Your task to perform on an android device: Go to Google maps Image 0: 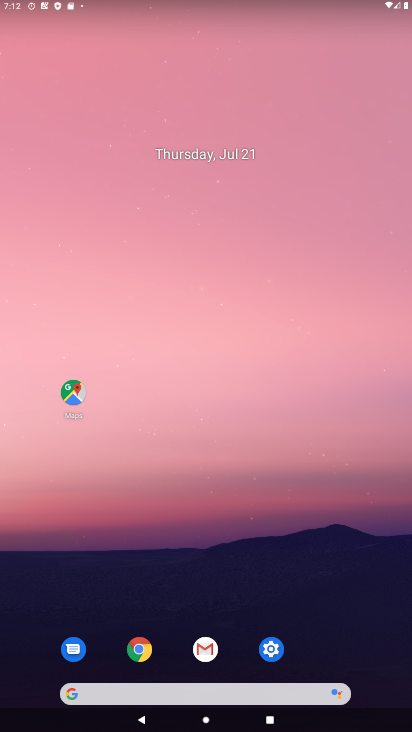
Step 0: click (65, 382)
Your task to perform on an android device: Go to Google maps Image 1: 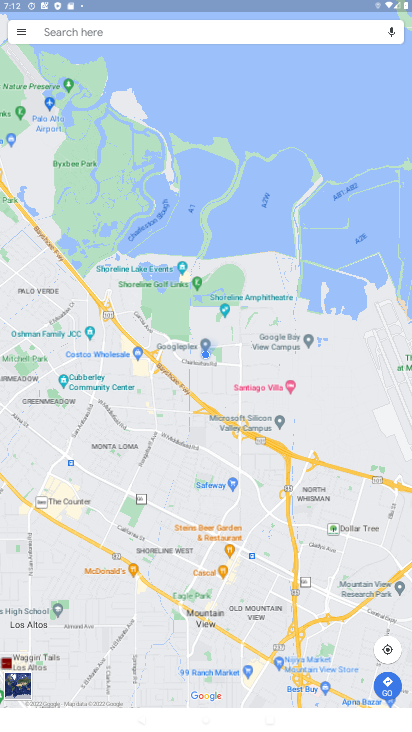
Step 1: click (254, 284)
Your task to perform on an android device: Go to Google maps Image 2: 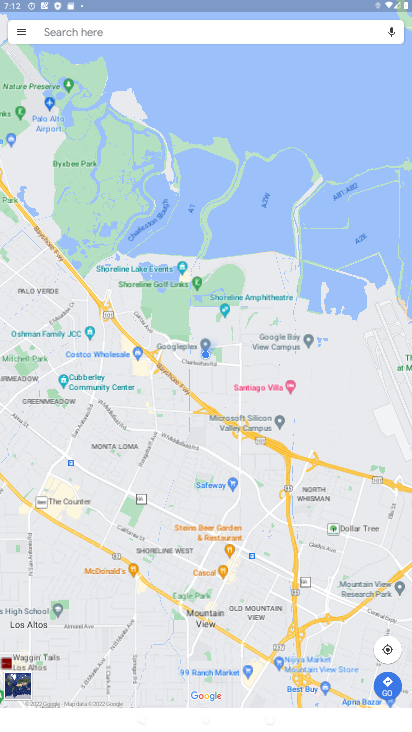
Step 2: click (389, 644)
Your task to perform on an android device: Go to Google maps Image 3: 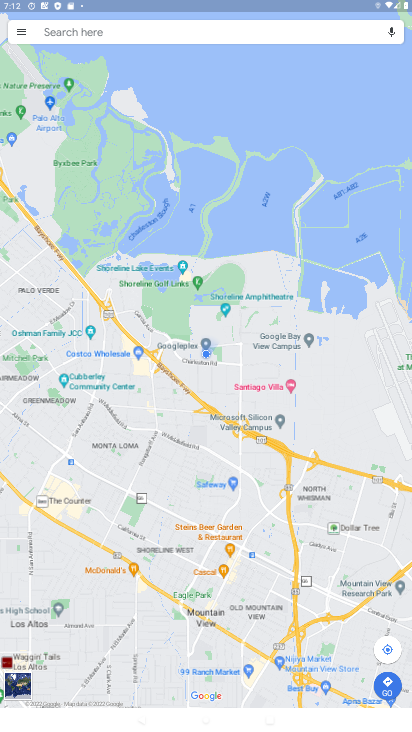
Step 3: task complete